Your task to perform on an android device: Open Google Image 0: 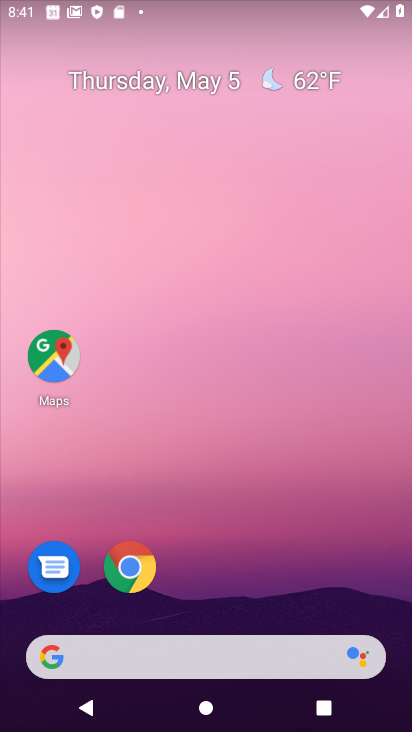
Step 0: drag from (222, 727) to (192, 277)
Your task to perform on an android device: Open Google Image 1: 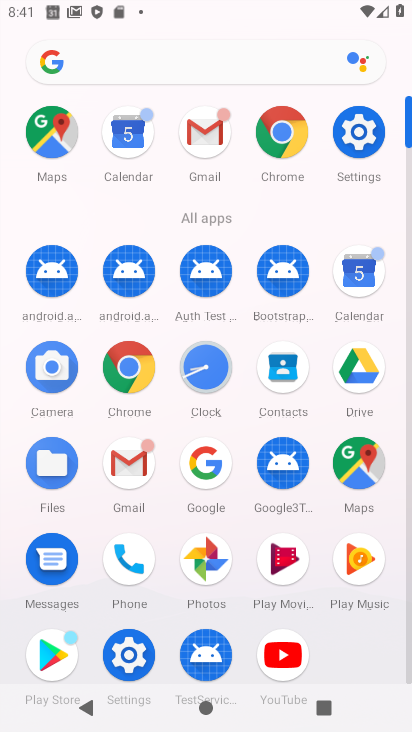
Step 1: click (208, 464)
Your task to perform on an android device: Open Google Image 2: 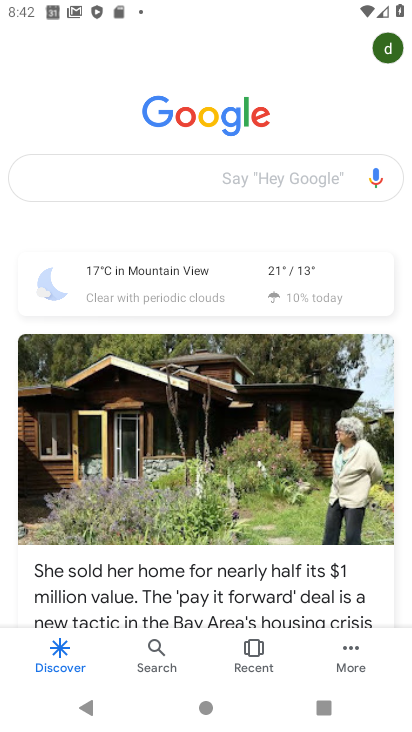
Step 2: task complete